Your task to perform on an android device: Search for Italian restaurants on Maps Image 0: 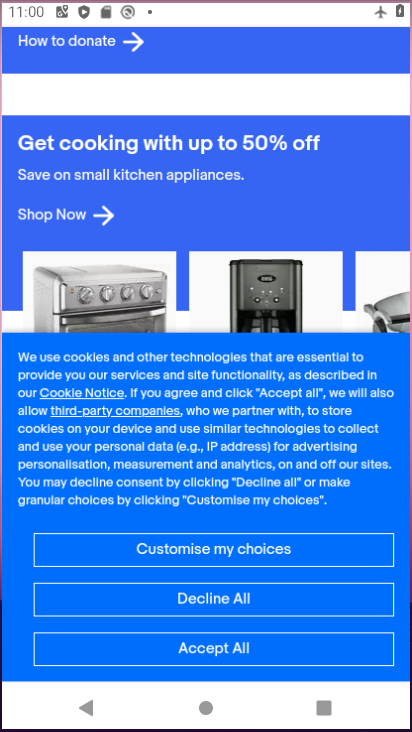
Step 0: drag from (212, 618) to (291, 18)
Your task to perform on an android device: Search for Italian restaurants on Maps Image 1: 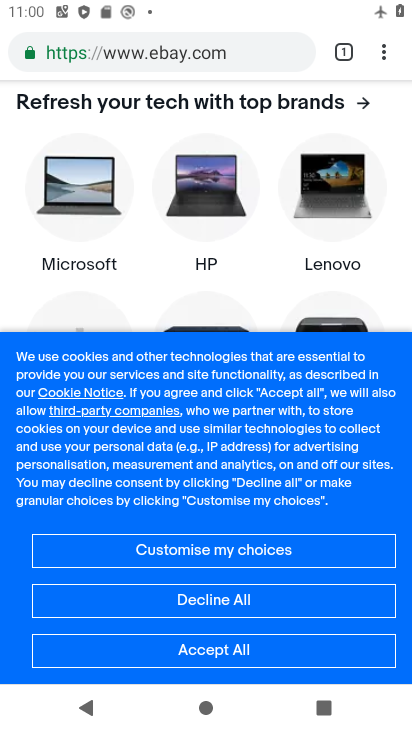
Step 1: press home button
Your task to perform on an android device: Search for Italian restaurants on Maps Image 2: 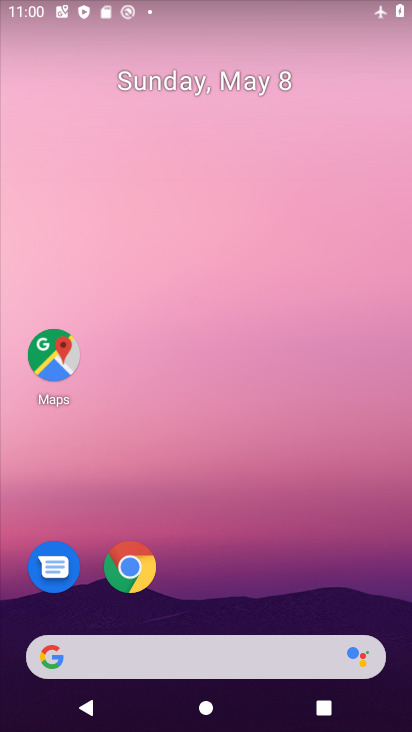
Step 2: click (51, 345)
Your task to perform on an android device: Search for Italian restaurants on Maps Image 3: 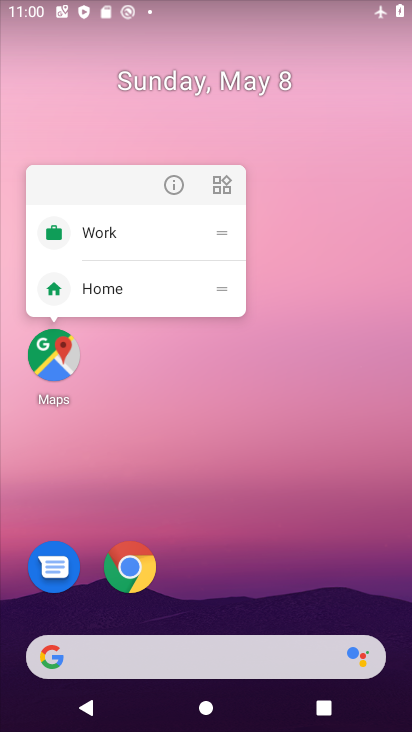
Step 3: click (55, 349)
Your task to perform on an android device: Search for Italian restaurants on Maps Image 4: 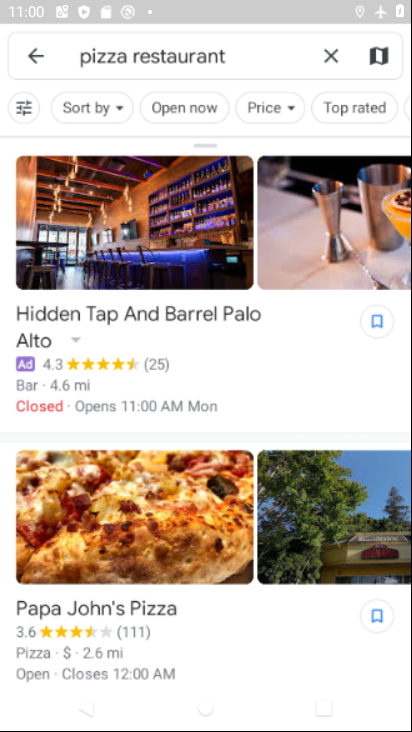
Step 4: click (330, 52)
Your task to perform on an android device: Search for Italian restaurants on Maps Image 5: 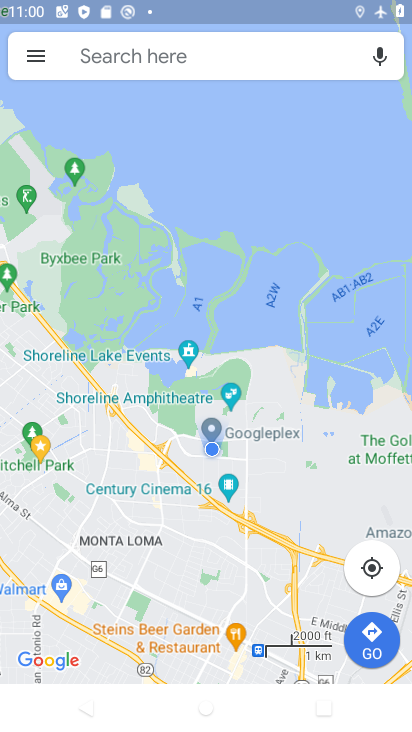
Step 5: click (138, 51)
Your task to perform on an android device: Search for Italian restaurants on Maps Image 6: 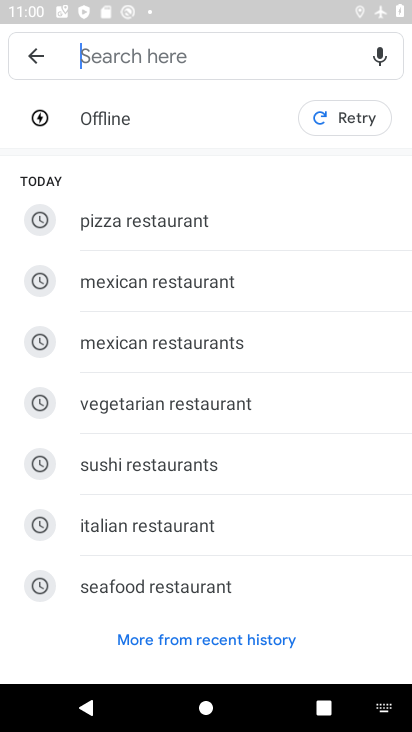
Step 6: click (165, 515)
Your task to perform on an android device: Search for Italian restaurants on Maps Image 7: 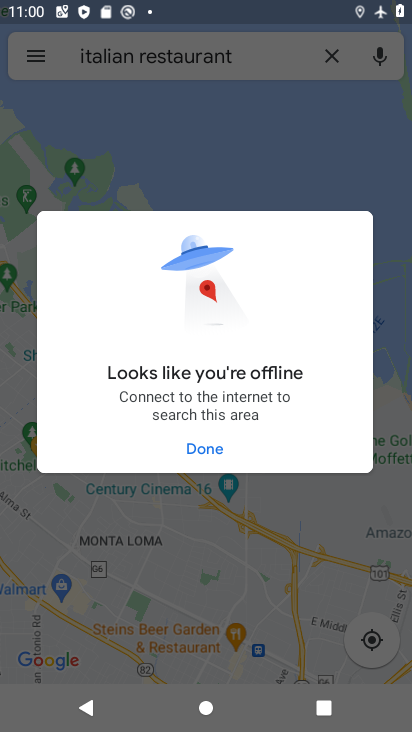
Step 7: task complete